Your task to perform on an android device: What's the weather? Image 0: 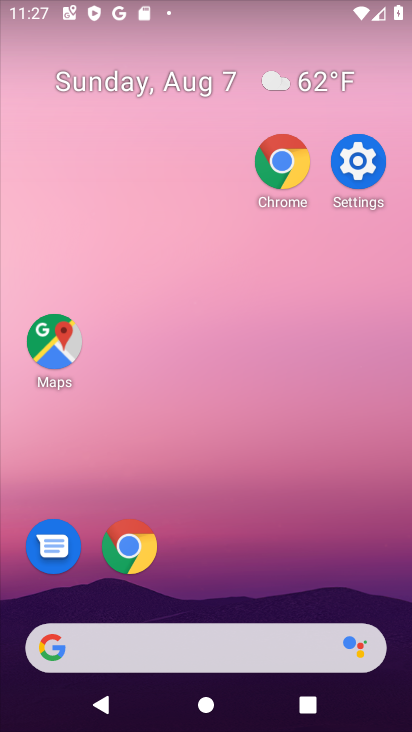
Step 0: drag from (264, 685) to (247, 85)
Your task to perform on an android device: What's the weather? Image 1: 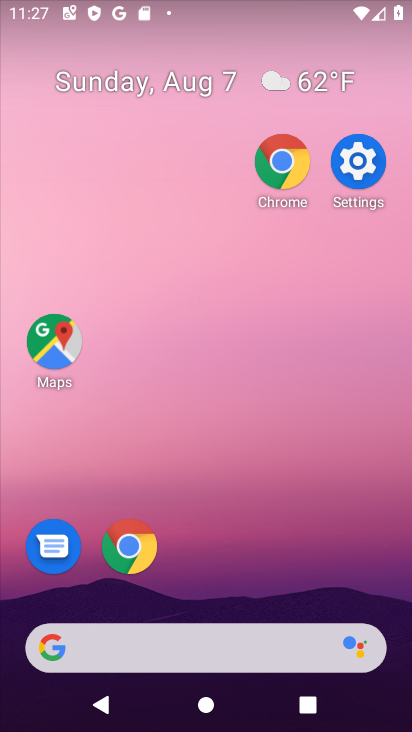
Step 1: drag from (288, 557) to (224, 133)
Your task to perform on an android device: What's the weather? Image 2: 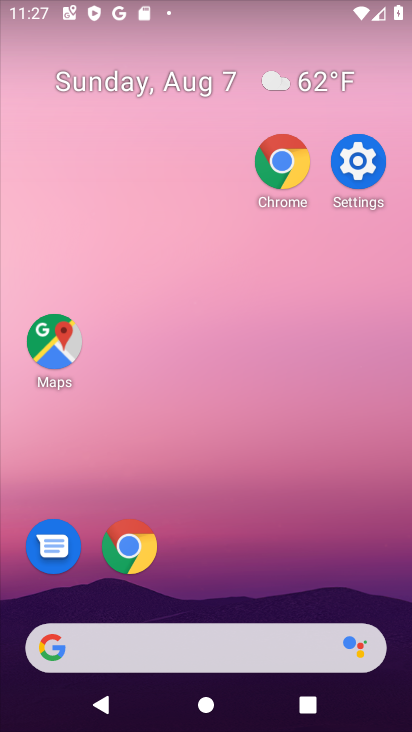
Step 2: drag from (261, 430) to (254, 202)
Your task to perform on an android device: What's the weather? Image 3: 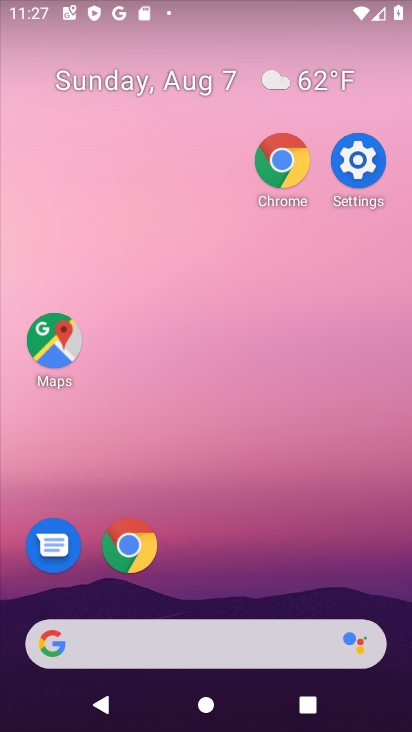
Step 3: click (271, 155)
Your task to perform on an android device: What's the weather? Image 4: 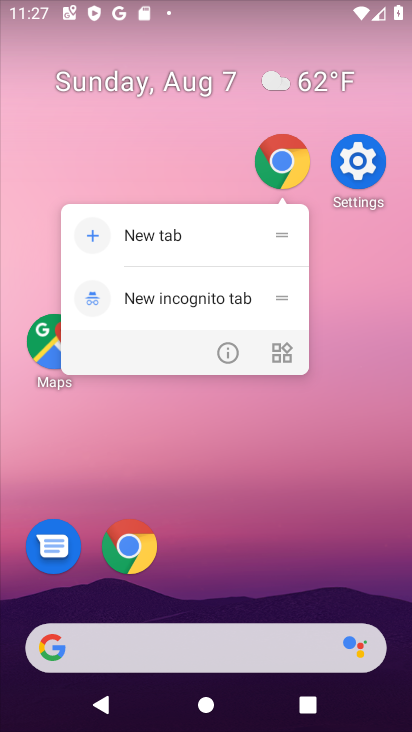
Step 4: click (285, 168)
Your task to perform on an android device: What's the weather? Image 5: 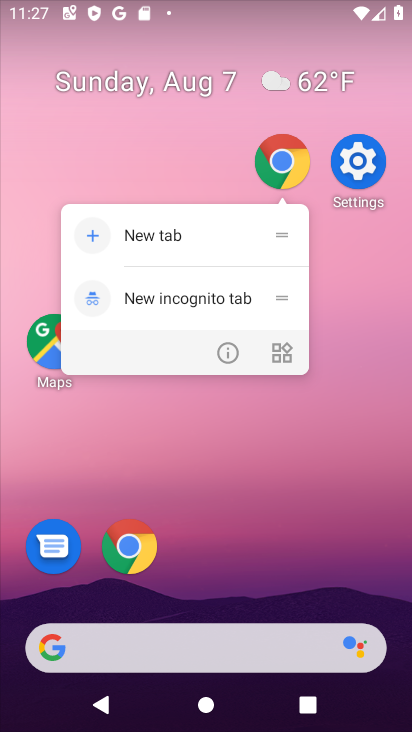
Step 5: click (211, 218)
Your task to perform on an android device: What's the weather? Image 6: 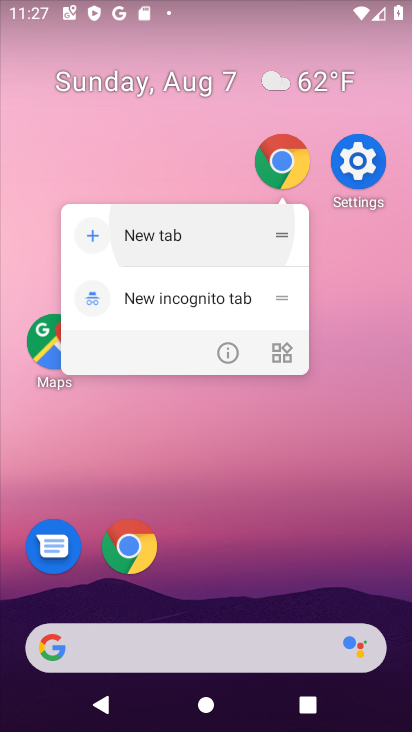
Step 6: click (190, 221)
Your task to perform on an android device: What's the weather? Image 7: 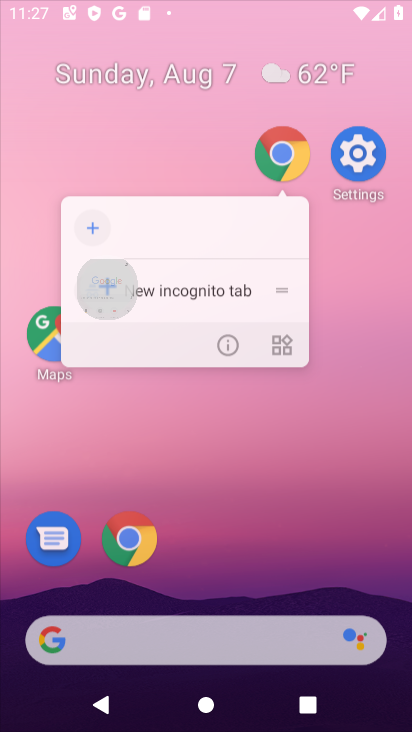
Step 7: click (211, 238)
Your task to perform on an android device: What's the weather? Image 8: 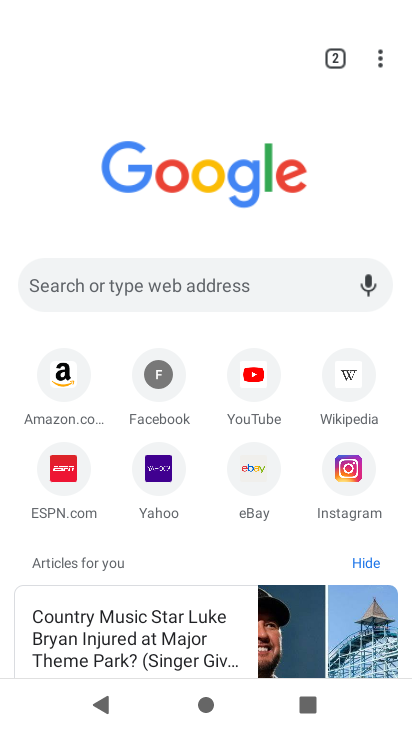
Step 8: click (222, 234)
Your task to perform on an android device: What's the weather? Image 9: 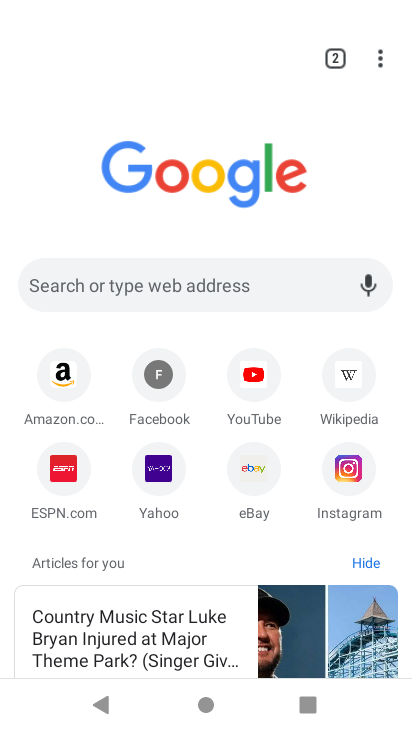
Step 9: click (98, 276)
Your task to perform on an android device: What's the weather? Image 10: 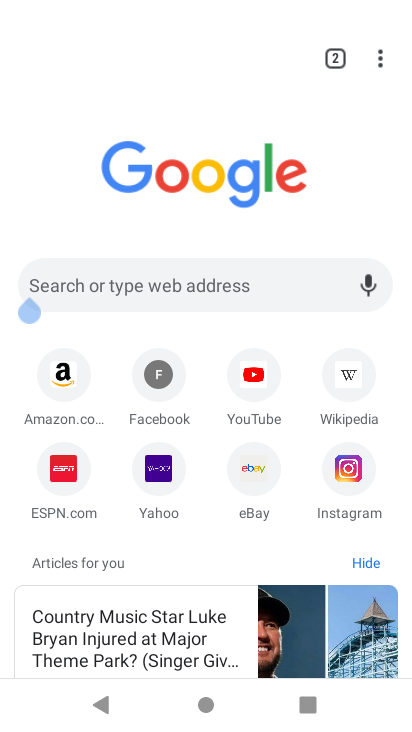
Step 10: click (113, 284)
Your task to perform on an android device: What's the weather? Image 11: 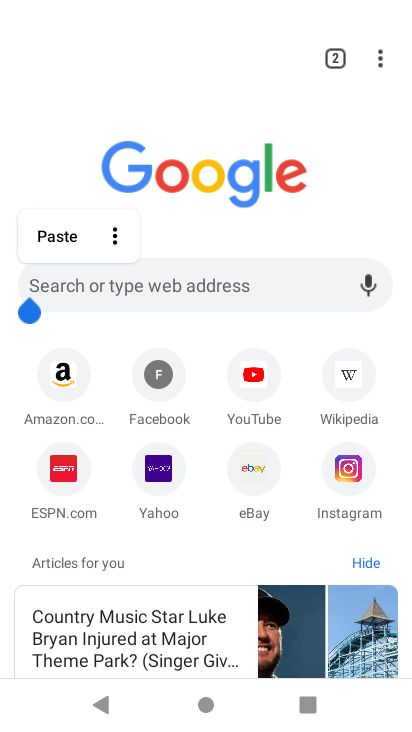
Step 11: click (47, 272)
Your task to perform on an android device: What's the weather? Image 12: 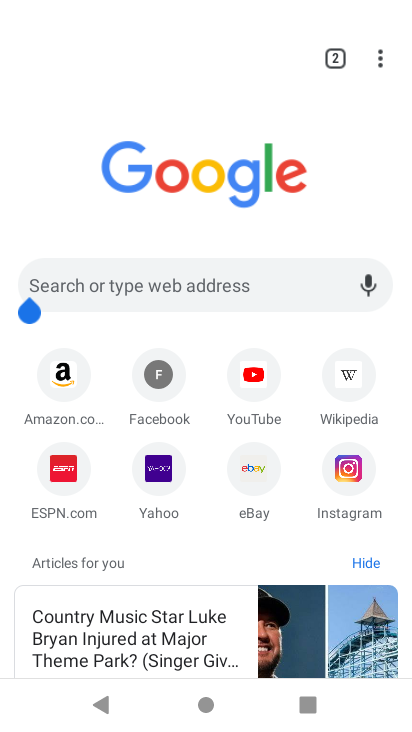
Step 12: click (47, 286)
Your task to perform on an android device: What's the weather? Image 13: 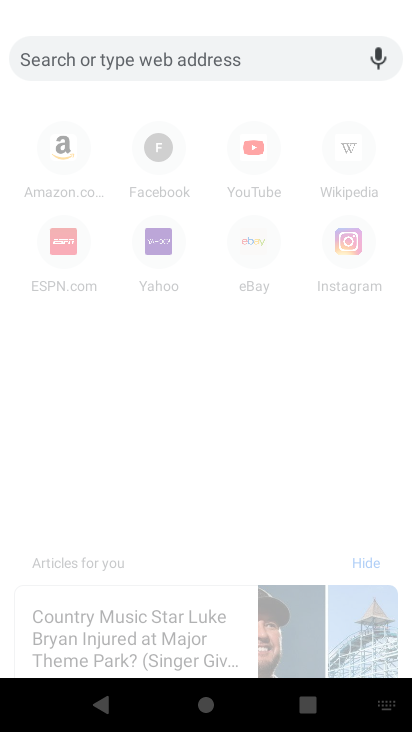
Step 13: type "weather"
Your task to perform on an android device: What's the weather? Image 14: 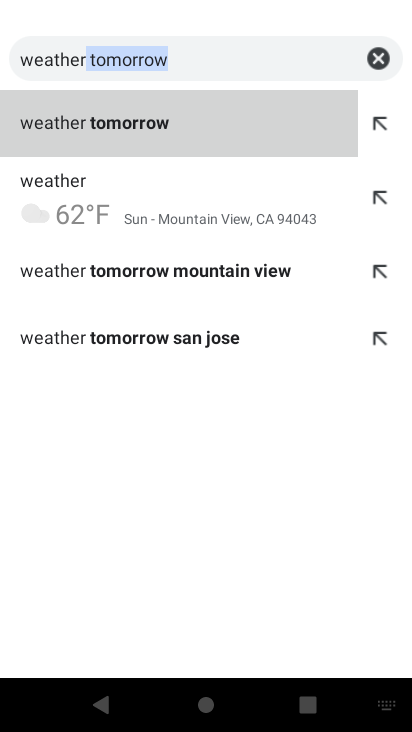
Step 14: click (126, 107)
Your task to perform on an android device: What's the weather? Image 15: 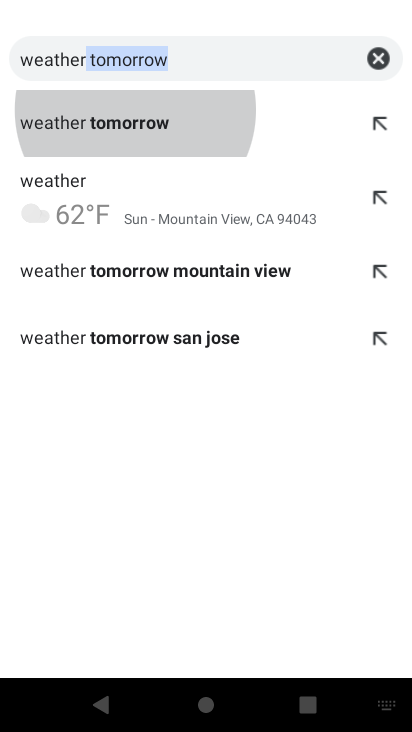
Step 15: click (135, 117)
Your task to perform on an android device: What's the weather? Image 16: 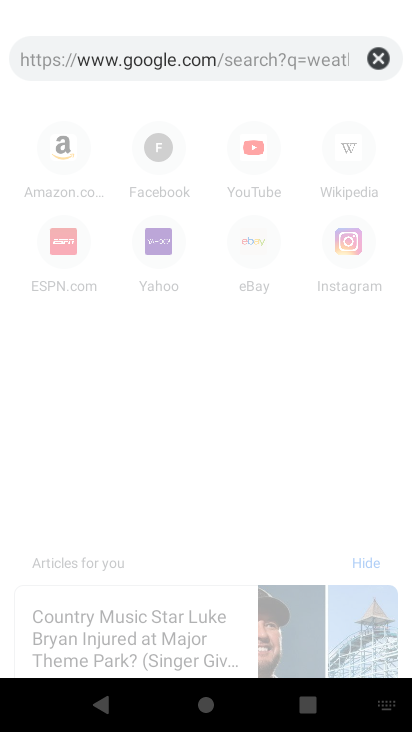
Step 16: task complete